Your task to perform on an android device: Open location settings Image 0: 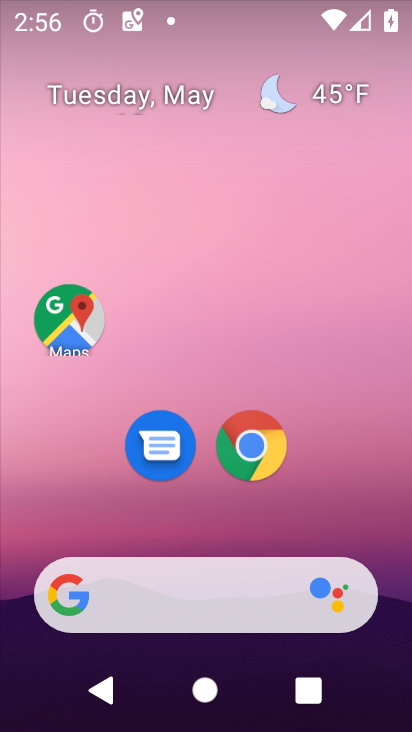
Step 0: drag from (165, 496) to (230, 72)
Your task to perform on an android device: Open location settings Image 1: 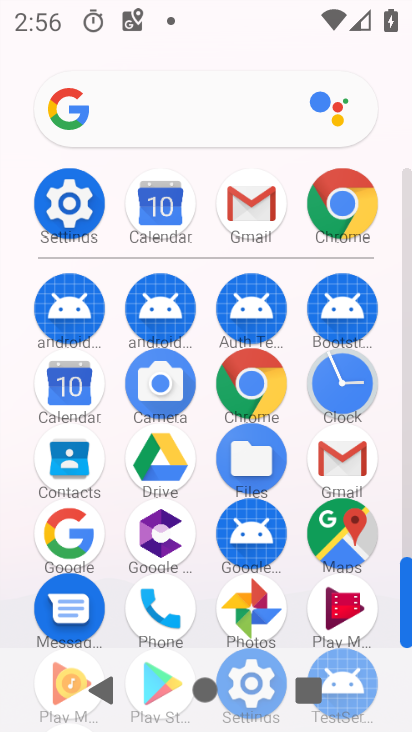
Step 1: click (64, 194)
Your task to perform on an android device: Open location settings Image 2: 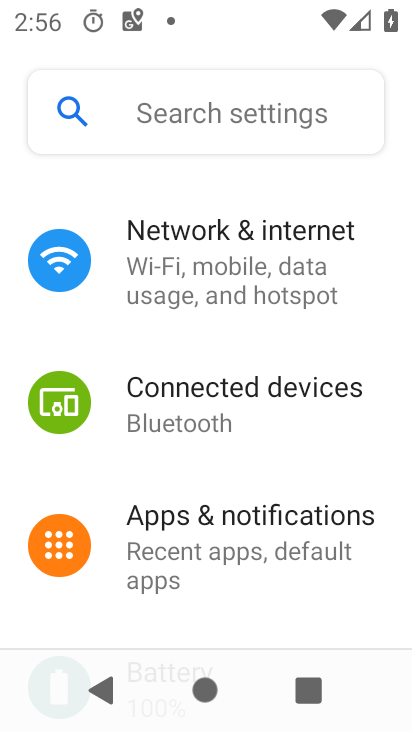
Step 2: drag from (202, 578) to (308, 161)
Your task to perform on an android device: Open location settings Image 3: 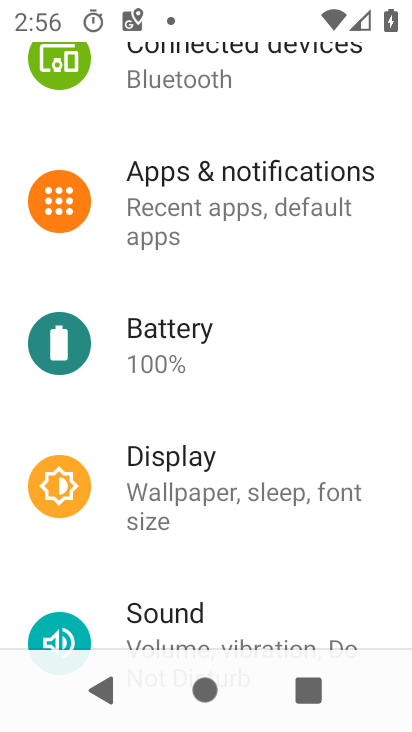
Step 3: drag from (202, 596) to (339, 81)
Your task to perform on an android device: Open location settings Image 4: 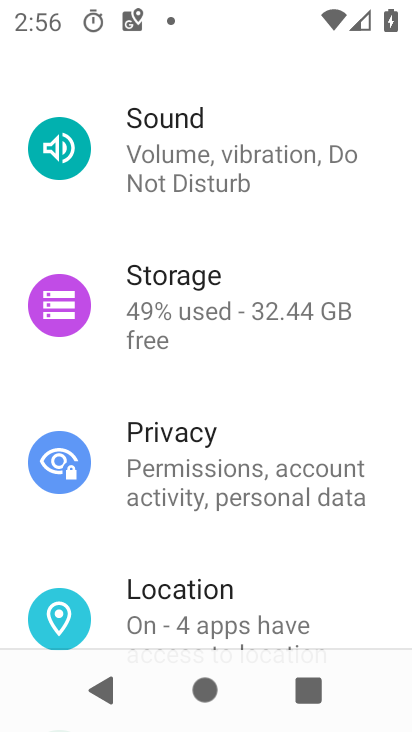
Step 4: click (171, 594)
Your task to perform on an android device: Open location settings Image 5: 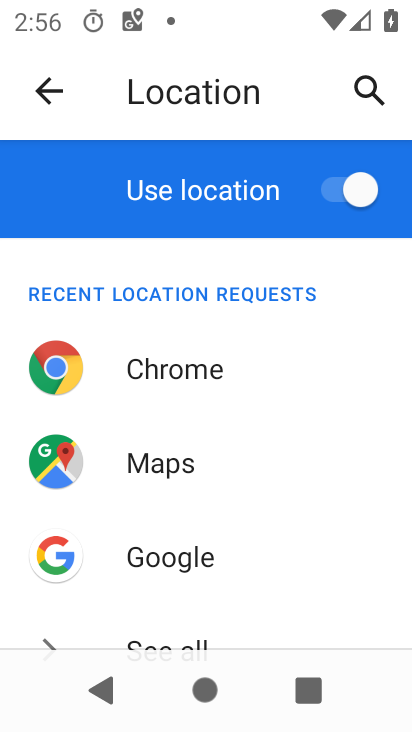
Step 5: task complete